Your task to perform on an android device: Do I have any events tomorrow? Image 0: 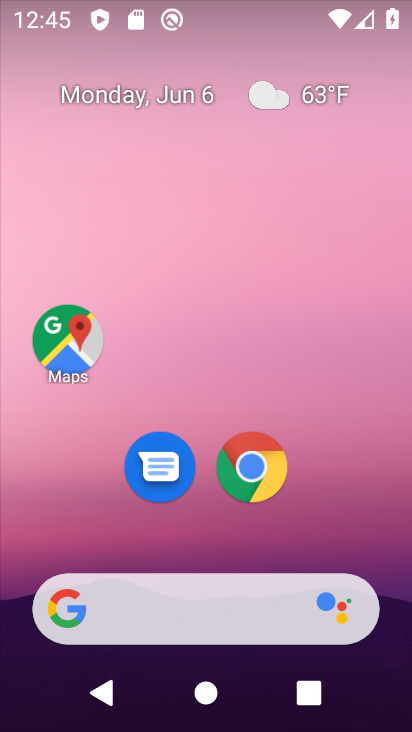
Step 0: drag from (385, 624) to (204, 72)
Your task to perform on an android device: Do I have any events tomorrow? Image 1: 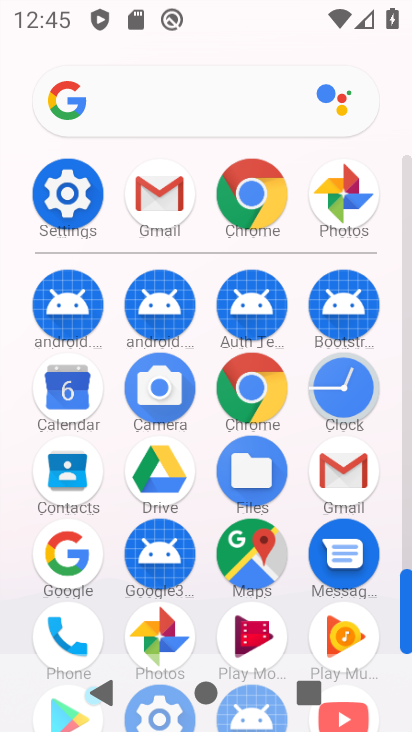
Step 1: click (47, 396)
Your task to perform on an android device: Do I have any events tomorrow? Image 2: 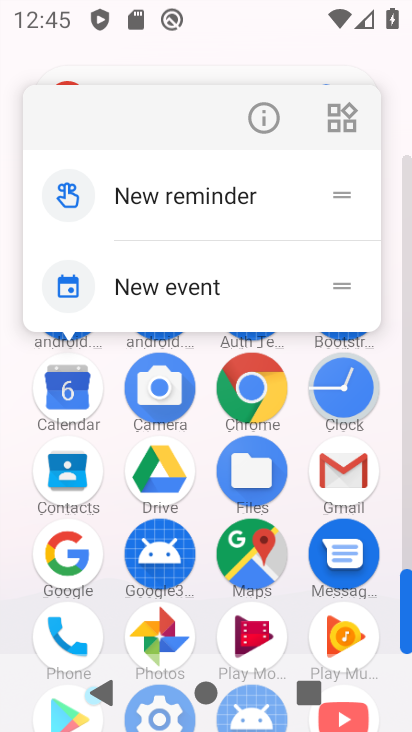
Step 2: click (48, 398)
Your task to perform on an android device: Do I have any events tomorrow? Image 3: 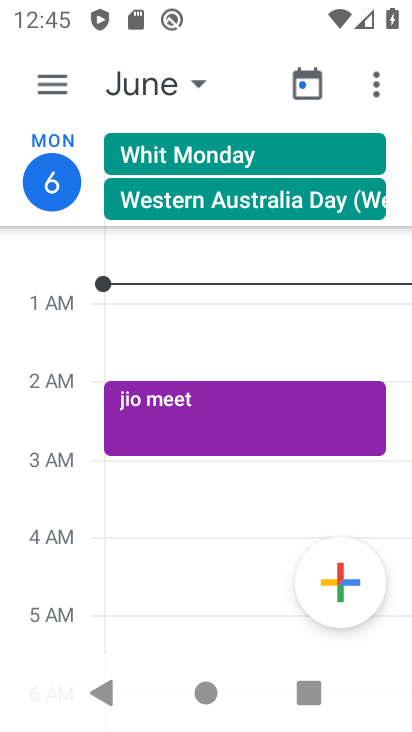
Step 3: task complete